Your task to perform on an android device: Search for usb-c to usb-b on newegg.com, select the first entry, add it to the cart, then select checkout. Image 0: 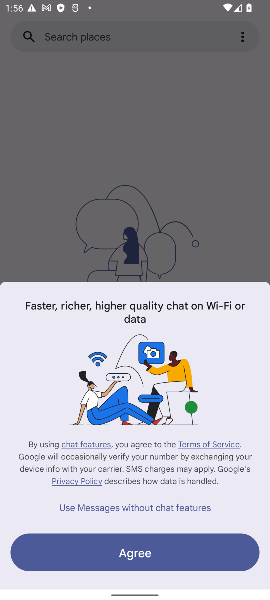
Step 0: press home button
Your task to perform on an android device: Search for usb-c to usb-b on newegg.com, select the first entry, add it to the cart, then select checkout. Image 1: 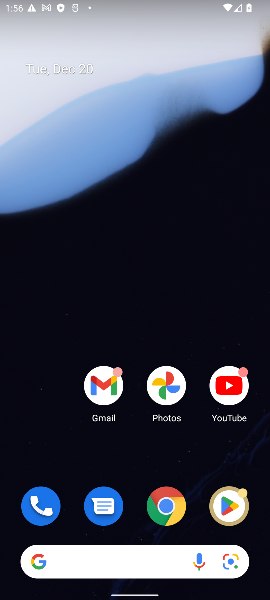
Step 1: click (167, 507)
Your task to perform on an android device: Search for usb-c to usb-b on newegg.com, select the first entry, add it to the cart, then select checkout. Image 2: 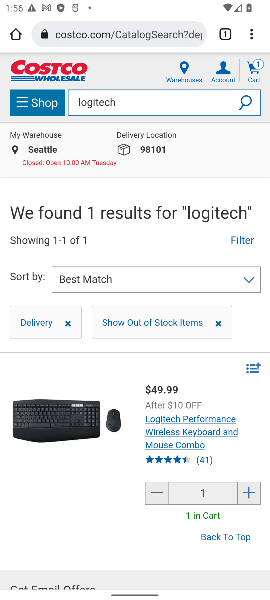
Step 2: click (163, 29)
Your task to perform on an android device: Search for usb-c to usb-b on newegg.com, select the first entry, add it to the cart, then select checkout. Image 3: 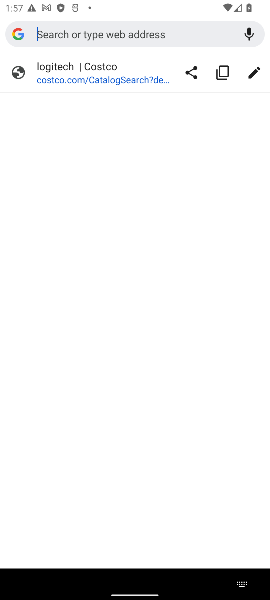
Step 3: type "NEWEGG"
Your task to perform on an android device: Search for usb-c to usb-b on newegg.com, select the first entry, add it to the cart, then select checkout. Image 4: 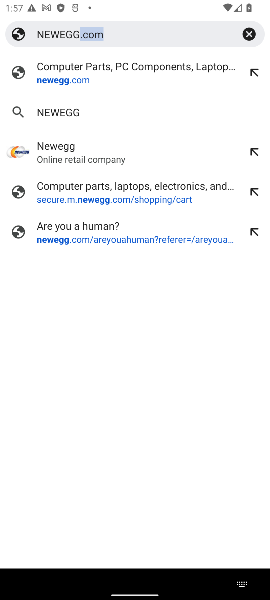
Step 4: click (88, 78)
Your task to perform on an android device: Search for usb-c to usb-b on newegg.com, select the first entry, add it to the cart, then select checkout. Image 5: 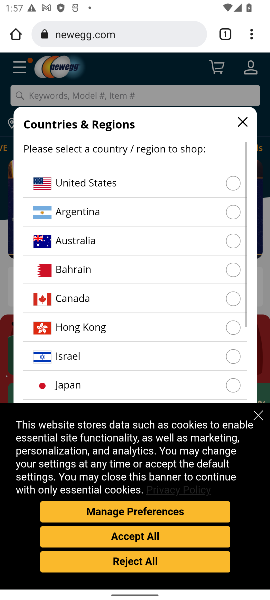
Step 5: click (133, 537)
Your task to perform on an android device: Search for usb-c to usb-b on newegg.com, select the first entry, add it to the cart, then select checkout. Image 6: 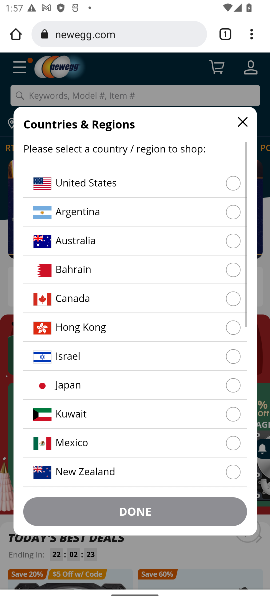
Step 6: click (113, 183)
Your task to perform on an android device: Search for usb-c to usb-b on newegg.com, select the first entry, add it to the cart, then select checkout. Image 7: 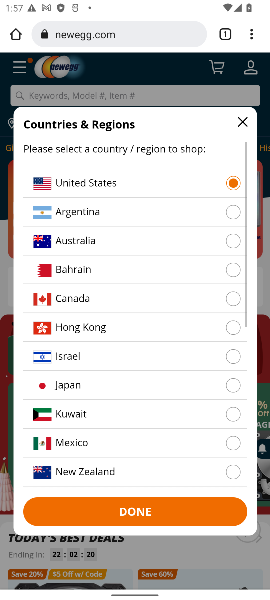
Step 7: click (133, 513)
Your task to perform on an android device: Search for usb-c to usb-b on newegg.com, select the first entry, add it to the cart, then select checkout. Image 8: 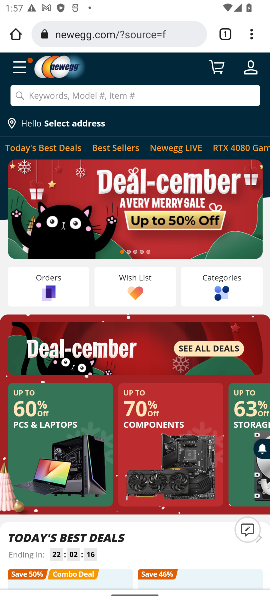
Step 8: click (133, 96)
Your task to perform on an android device: Search for usb-c to usb-b on newegg.com, select the first entry, add it to the cart, then select checkout. Image 9: 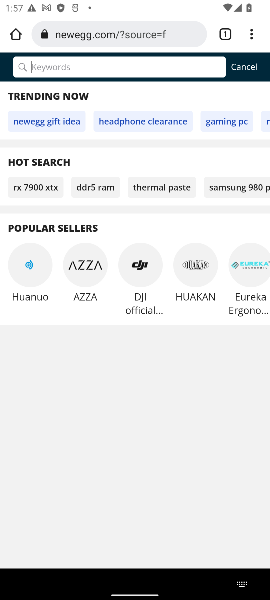
Step 9: type "usb-c to usb-b"
Your task to perform on an android device: Search for usb-c to usb-b on newegg.com, select the first entry, add it to the cart, then select checkout. Image 10: 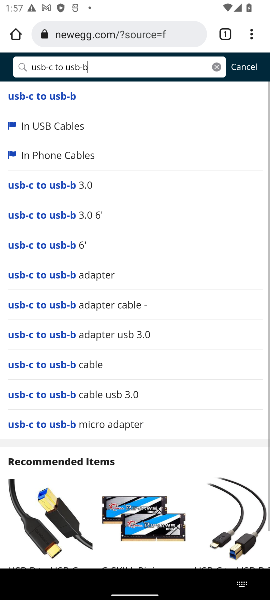
Step 10: click (62, 99)
Your task to perform on an android device: Search for usb-c to usb-b on newegg.com, select the first entry, add it to the cart, then select checkout. Image 11: 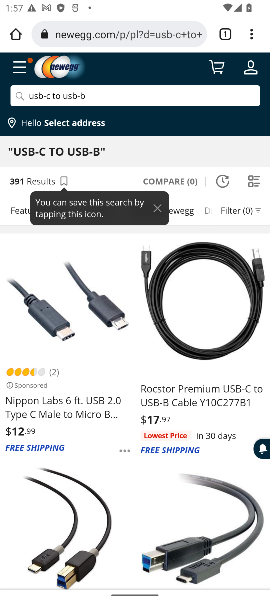
Step 11: click (78, 345)
Your task to perform on an android device: Search for usb-c to usb-b on newegg.com, select the first entry, add it to the cart, then select checkout. Image 12: 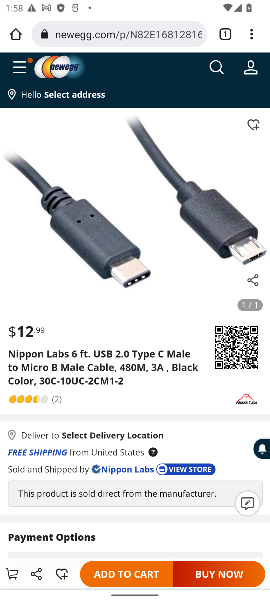
Step 12: click (115, 581)
Your task to perform on an android device: Search for usb-c to usb-b on newegg.com, select the first entry, add it to the cart, then select checkout. Image 13: 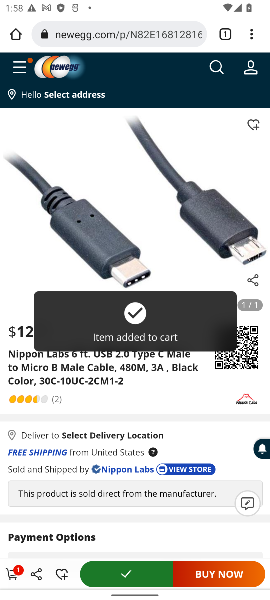
Step 13: click (14, 577)
Your task to perform on an android device: Search for usb-c to usb-b on newegg.com, select the first entry, add it to the cart, then select checkout. Image 14: 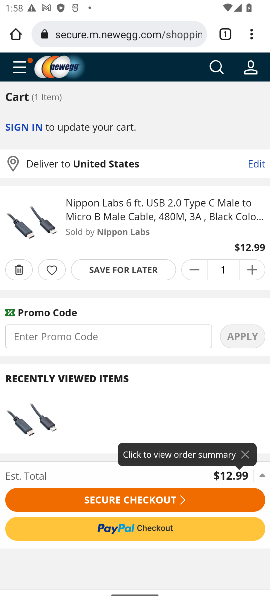
Step 14: click (132, 402)
Your task to perform on an android device: Search for usb-c to usb-b on newegg.com, select the first entry, add it to the cart, then select checkout. Image 15: 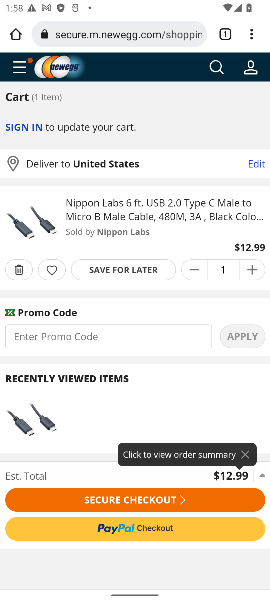
Step 15: click (139, 500)
Your task to perform on an android device: Search for usb-c to usb-b on newegg.com, select the first entry, add it to the cart, then select checkout. Image 16: 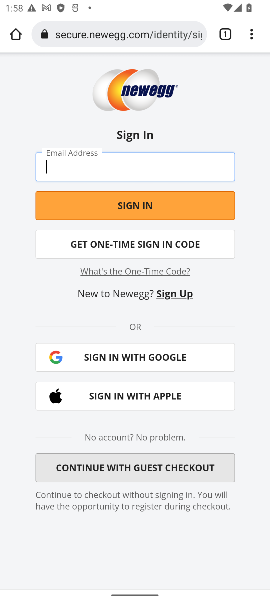
Step 16: task complete